Your task to perform on an android device: toggle translation in the chrome app Image 0: 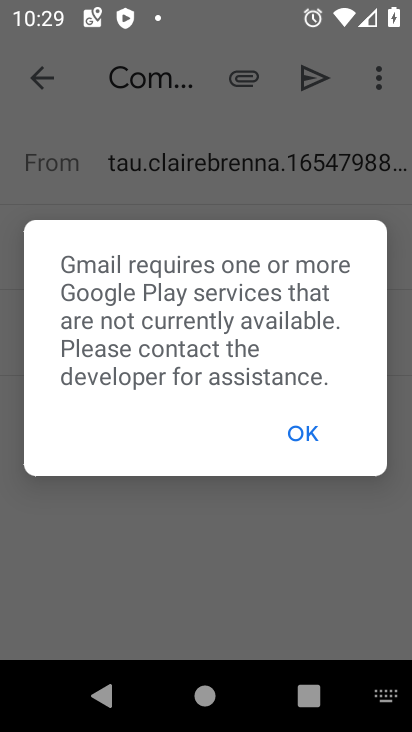
Step 0: press home button
Your task to perform on an android device: toggle translation in the chrome app Image 1: 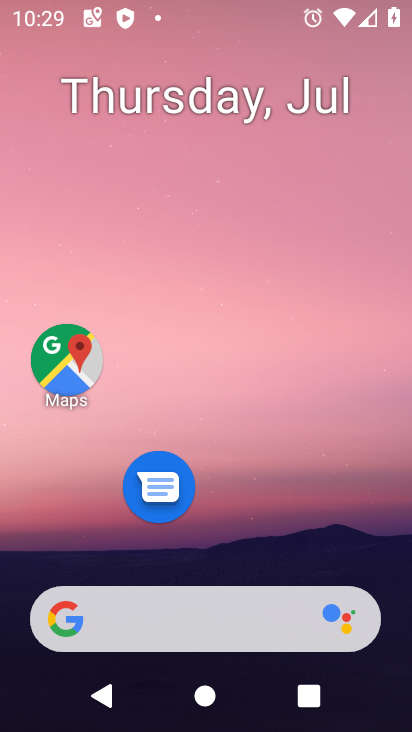
Step 1: drag from (198, 669) to (254, 174)
Your task to perform on an android device: toggle translation in the chrome app Image 2: 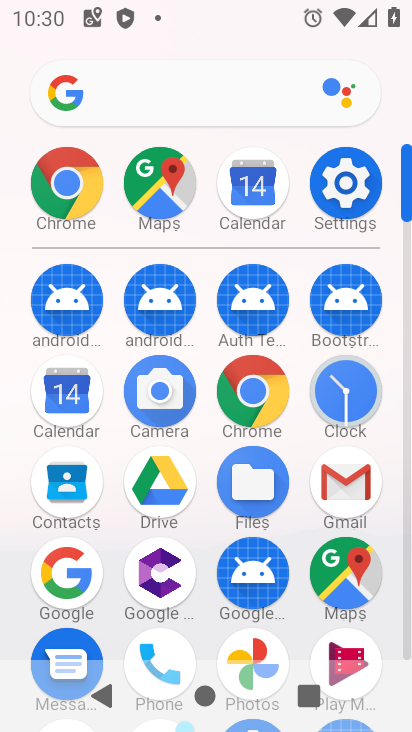
Step 2: click (263, 405)
Your task to perform on an android device: toggle translation in the chrome app Image 3: 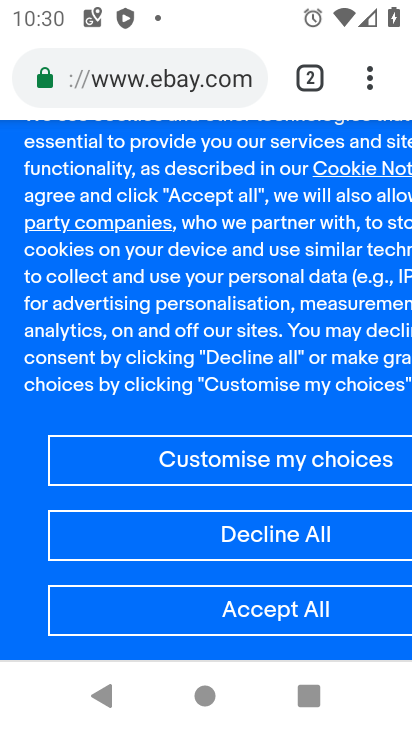
Step 3: click (379, 81)
Your task to perform on an android device: toggle translation in the chrome app Image 4: 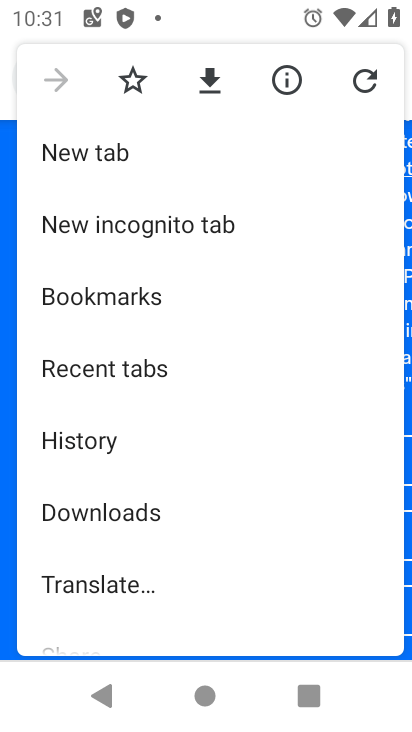
Step 4: drag from (196, 521) to (192, 212)
Your task to perform on an android device: toggle translation in the chrome app Image 5: 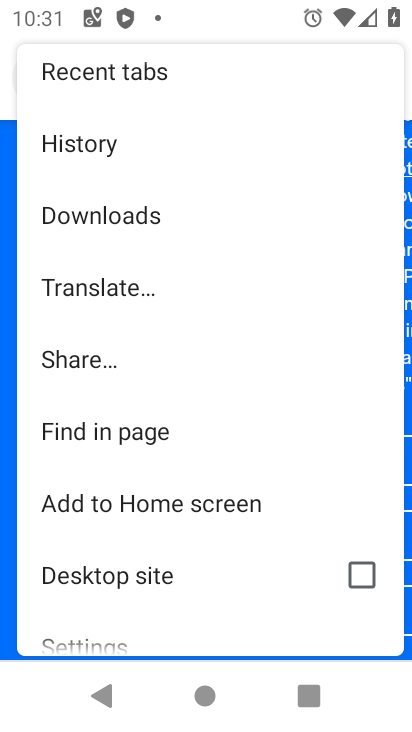
Step 5: drag from (175, 450) to (191, 174)
Your task to perform on an android device: toggle translation in the chrome app Image 6: 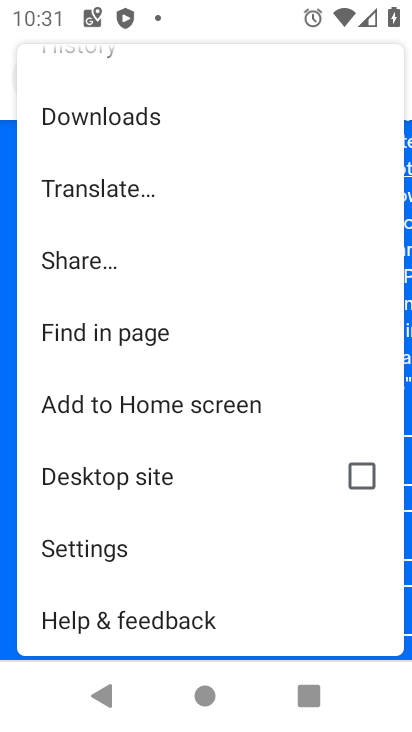
Step 6: click (108, 190)
Your task to perform on an android device: toggle translation in the chrome app Image 7: 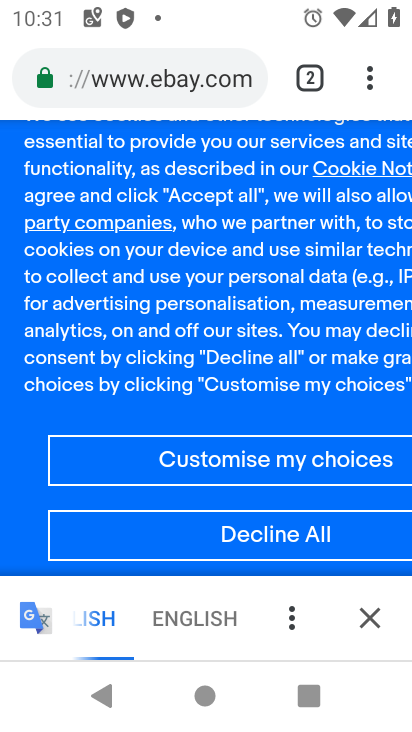
Step 7: click (287, 630)
Your task to perform on an android device: toggle translation in the chrome app Image 8: 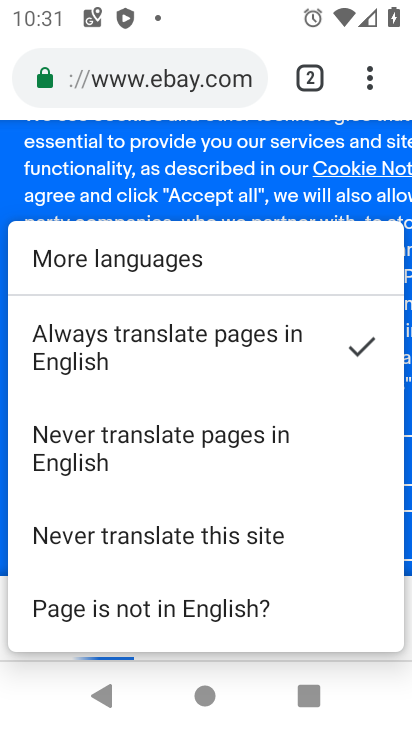
Step 8: task complete